Your task to perform on an android device: Clear the cart on newegg. Add razer blackwidow to the cart on newegg, then select checkout. Image 0: 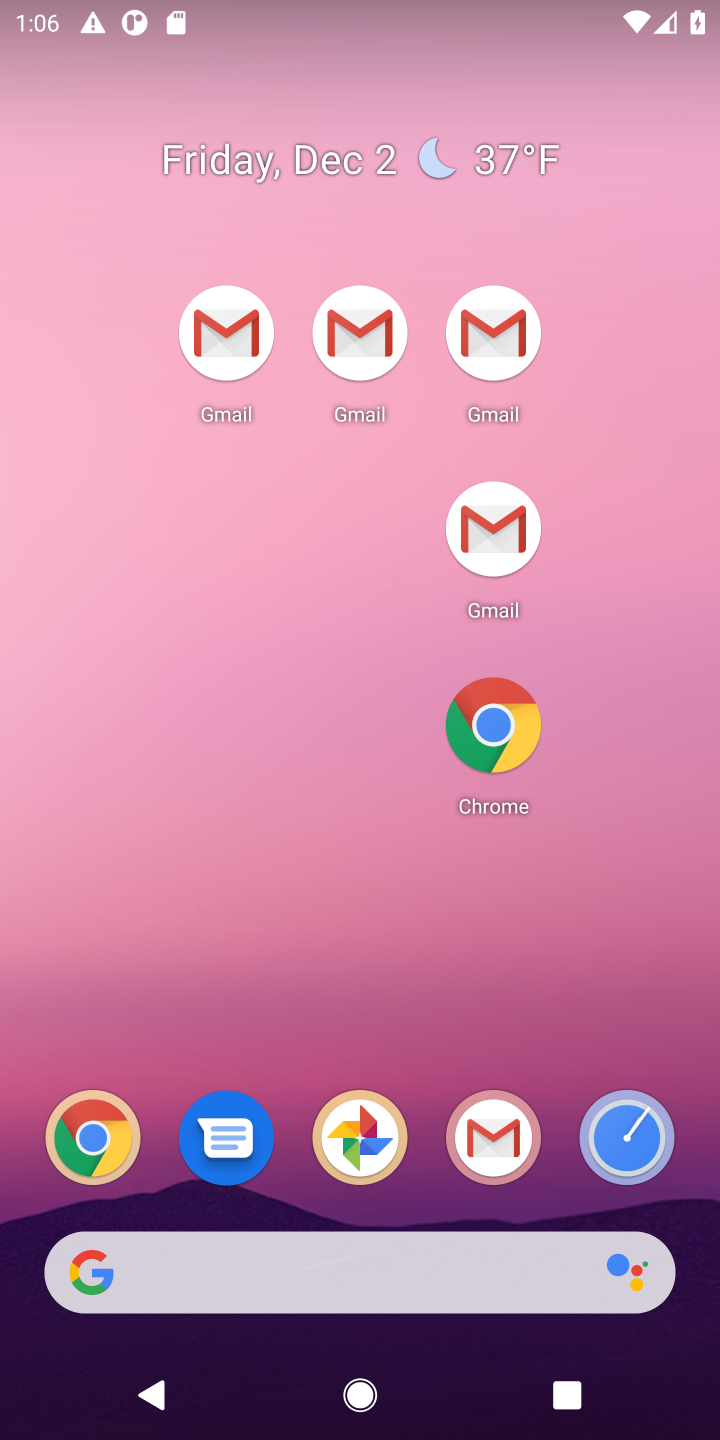
Step 0: drag from (438, 1093) to (438, 551)
Your task to perform on an android device: Clear the cart on newegg. Add razer blackwidow to the cart on newegg, then select checkout. Image 1: 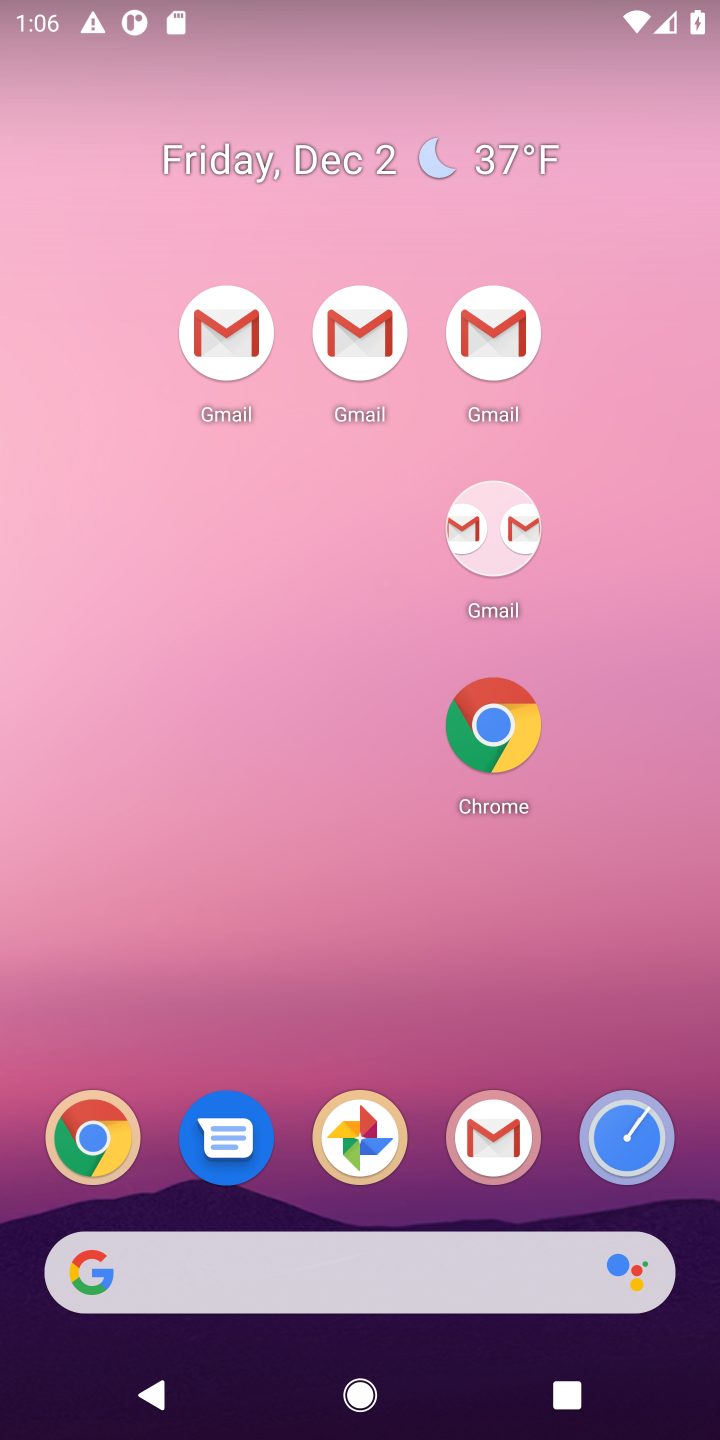
Step 1: drag from (574, 1084) to (579, 99)
Your task to perform on an android device: Clear the cart on newegg. Add razer blackwidow to the cart on newegg, then select checkout. Image 2: 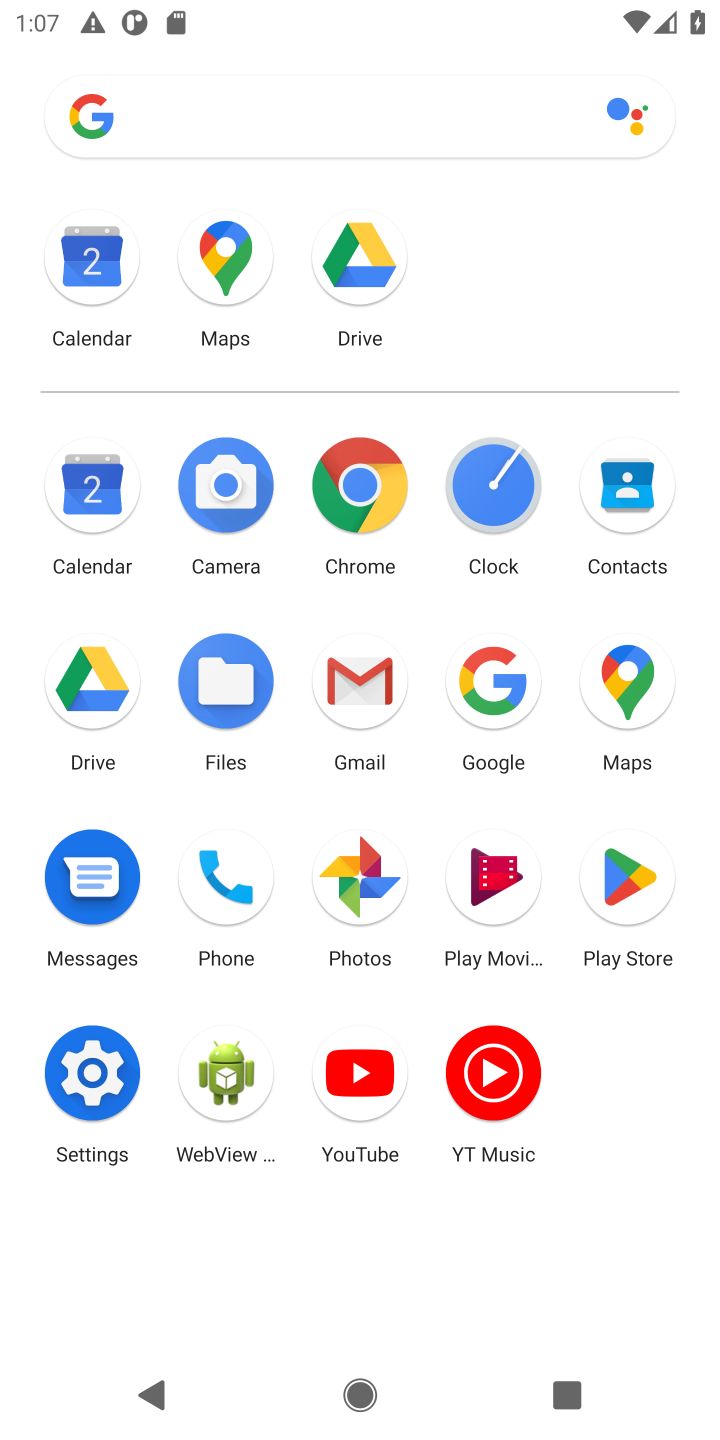
Step 2: click (477, 703)
Your task to perform on an android device: Clear the cart on newegg. Add razer blackwidow to the cart on newegg, then select checkout. Image 3: 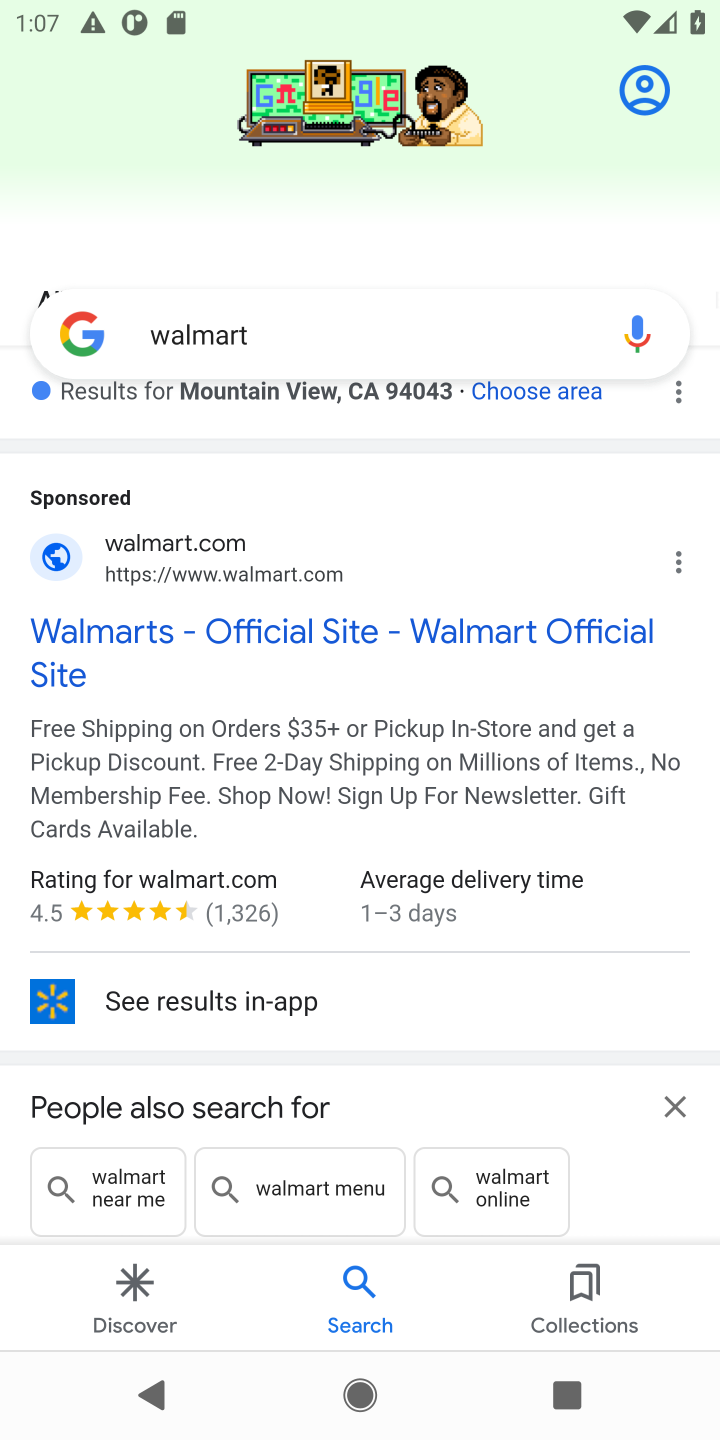
Step 3: click (445, 343)
Your task to perform on an android device: Clear the cart on newegg. Add razer blackwidow to the cart on newegg, then select checkout. Image 4: 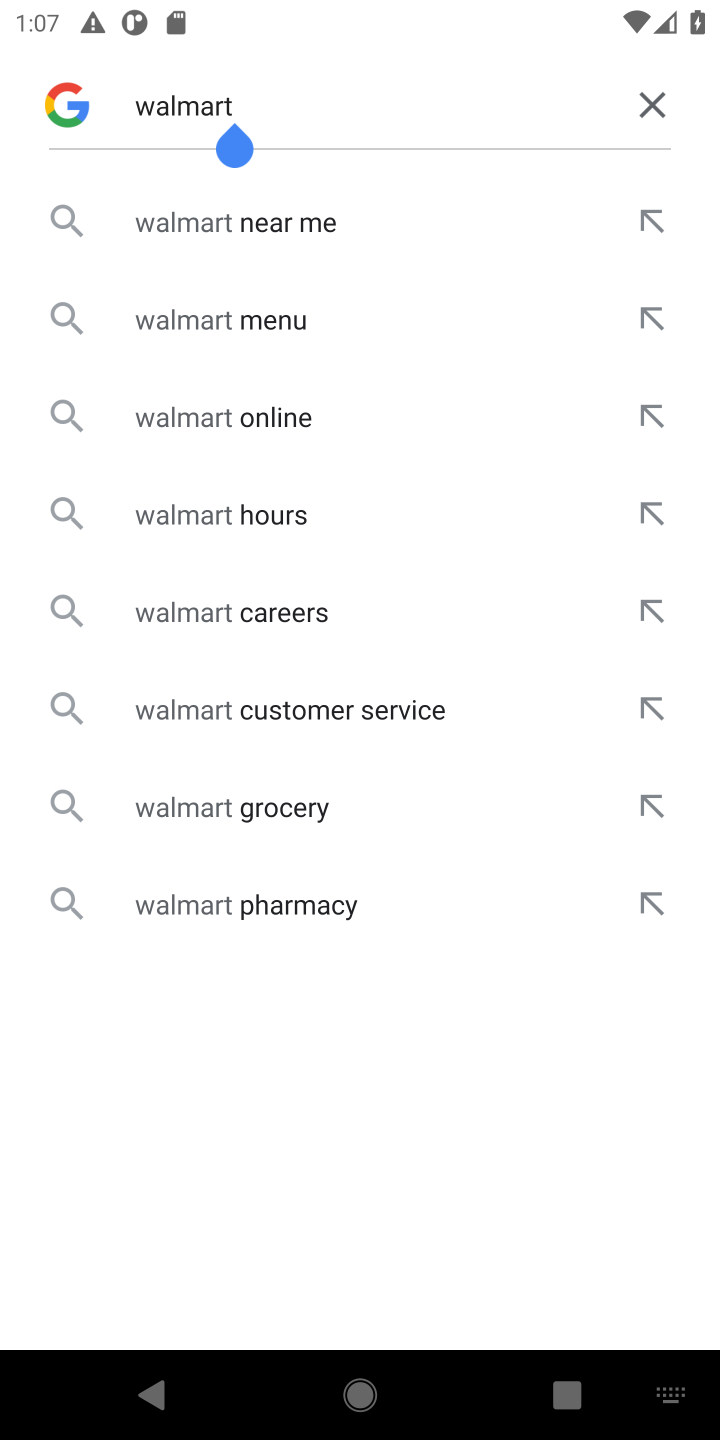
Step 4: click (644, 112)
Your task to perform on an android device: Clear the cart on newegg. Add razer blackwidow to the cart on newegg, then select checkout. Image 5: 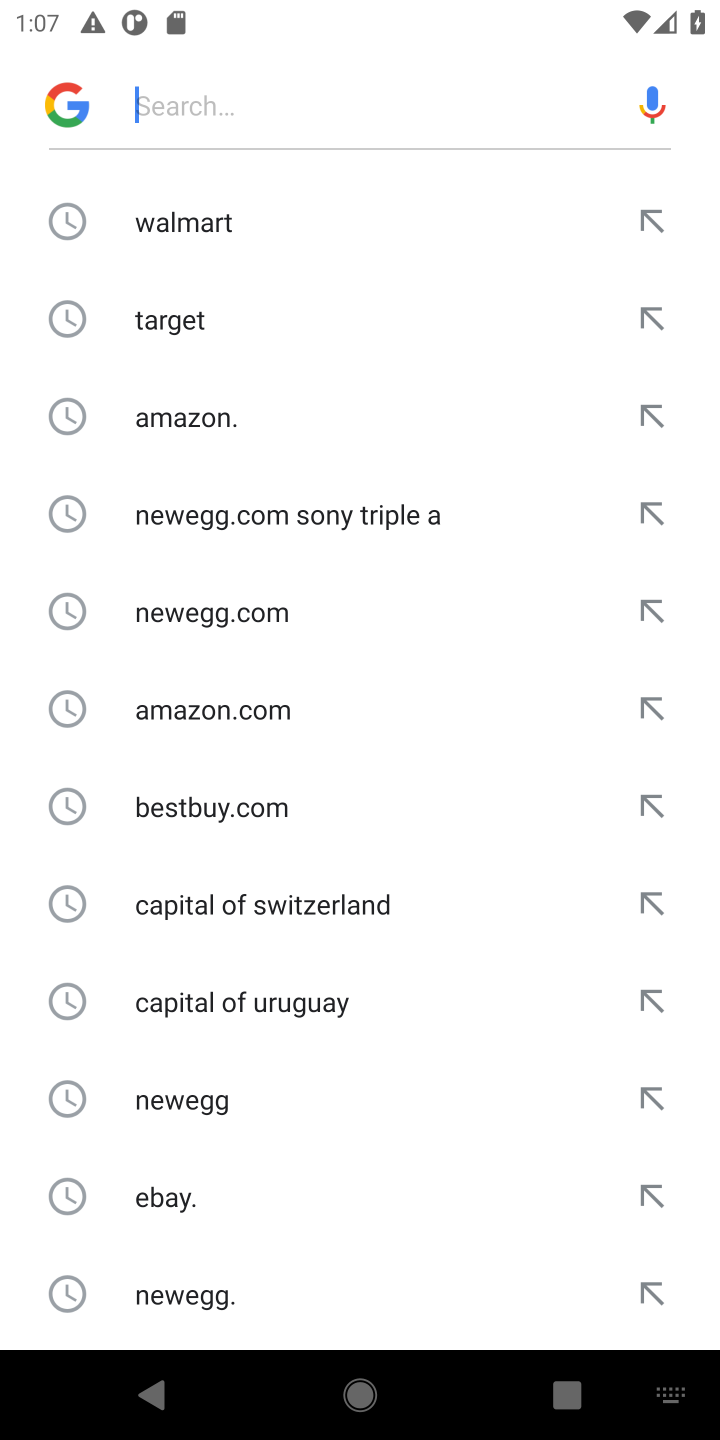
Step 5: type "newegg"
Your task to perform on an android device: Clear the cart on newegg. Add razer blackwidow to the cart on newegg, then select checkout. Image 6: 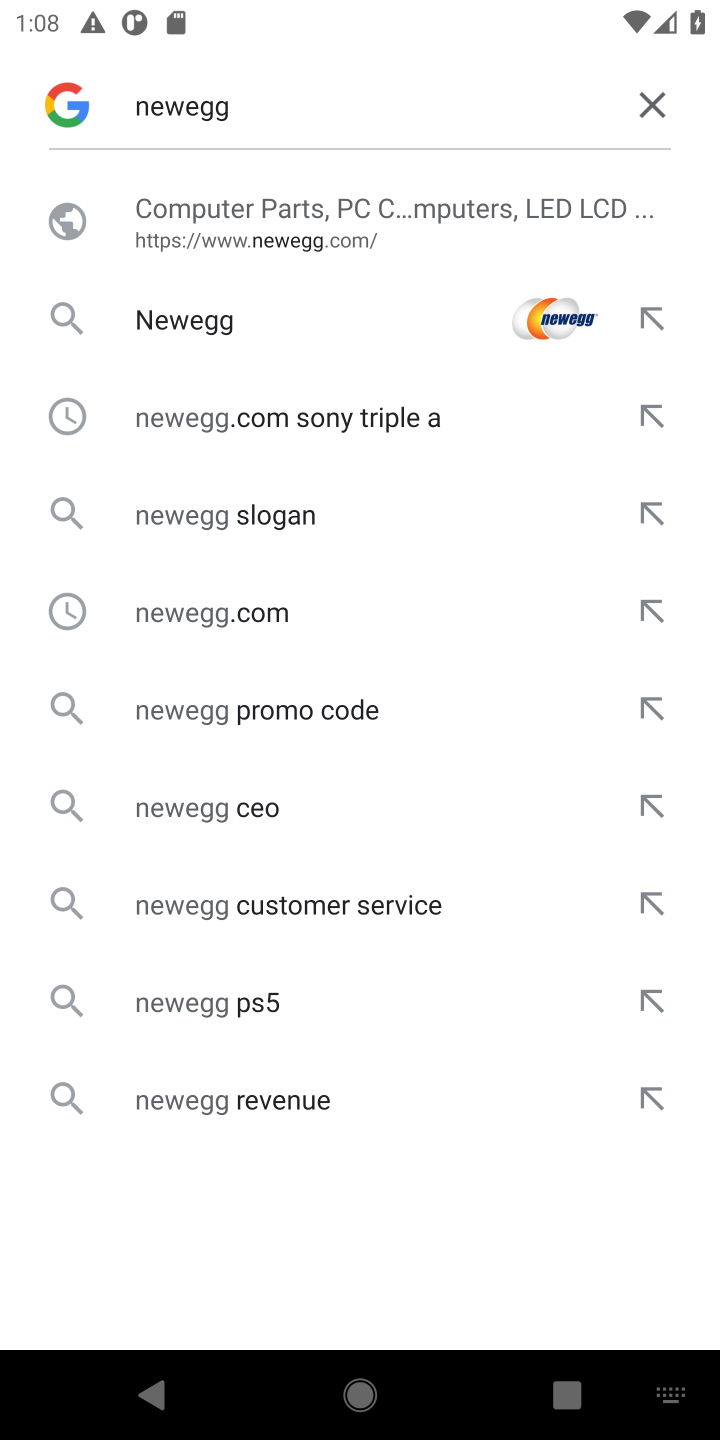
Step 6: click (380, 250)
Your task to perform on an android device: Clear the cart on newegg. Add razer blackwidow to the cart on newegg, then select checkout. Image 7: 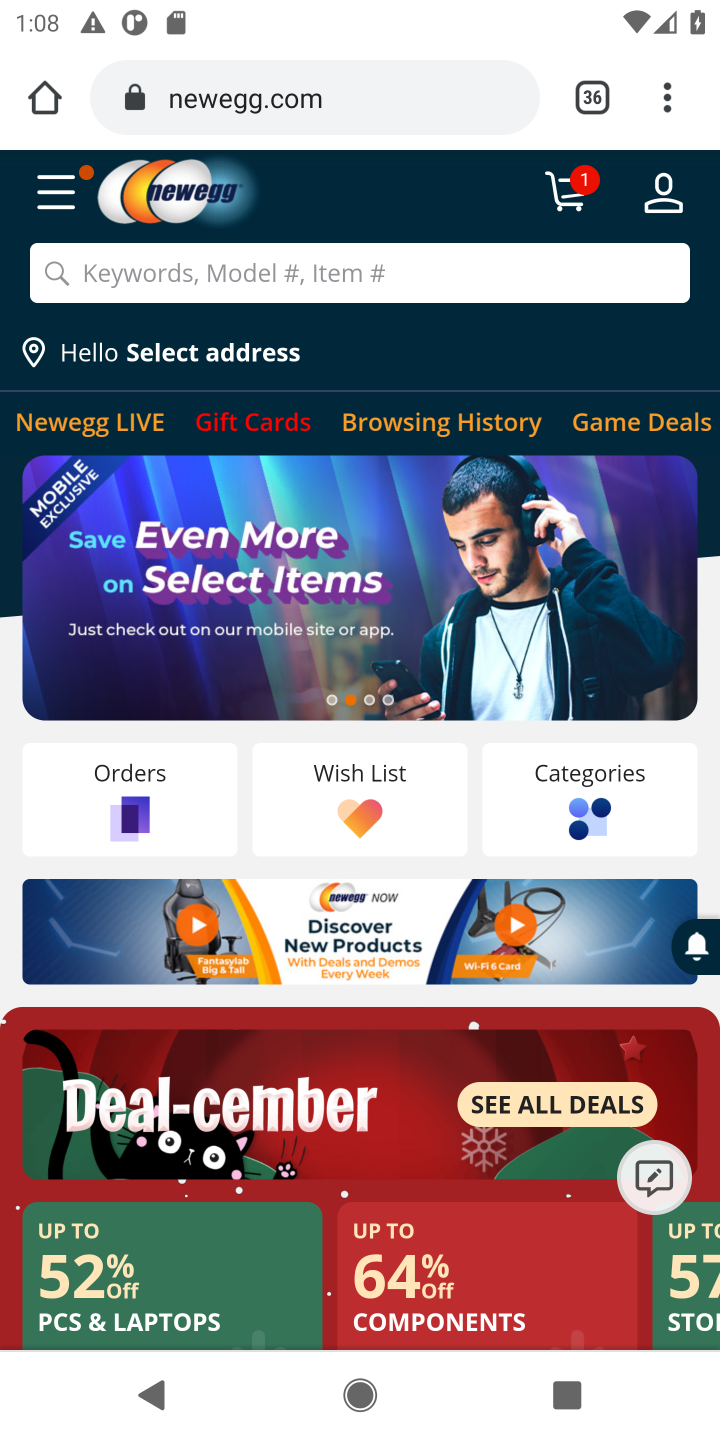
Step 7: click (578, 207)
Your task to perform on an android device: Clear the cart on newegg. Add razer blackwidow to the cart on newegg, then select checkout. Image 8: 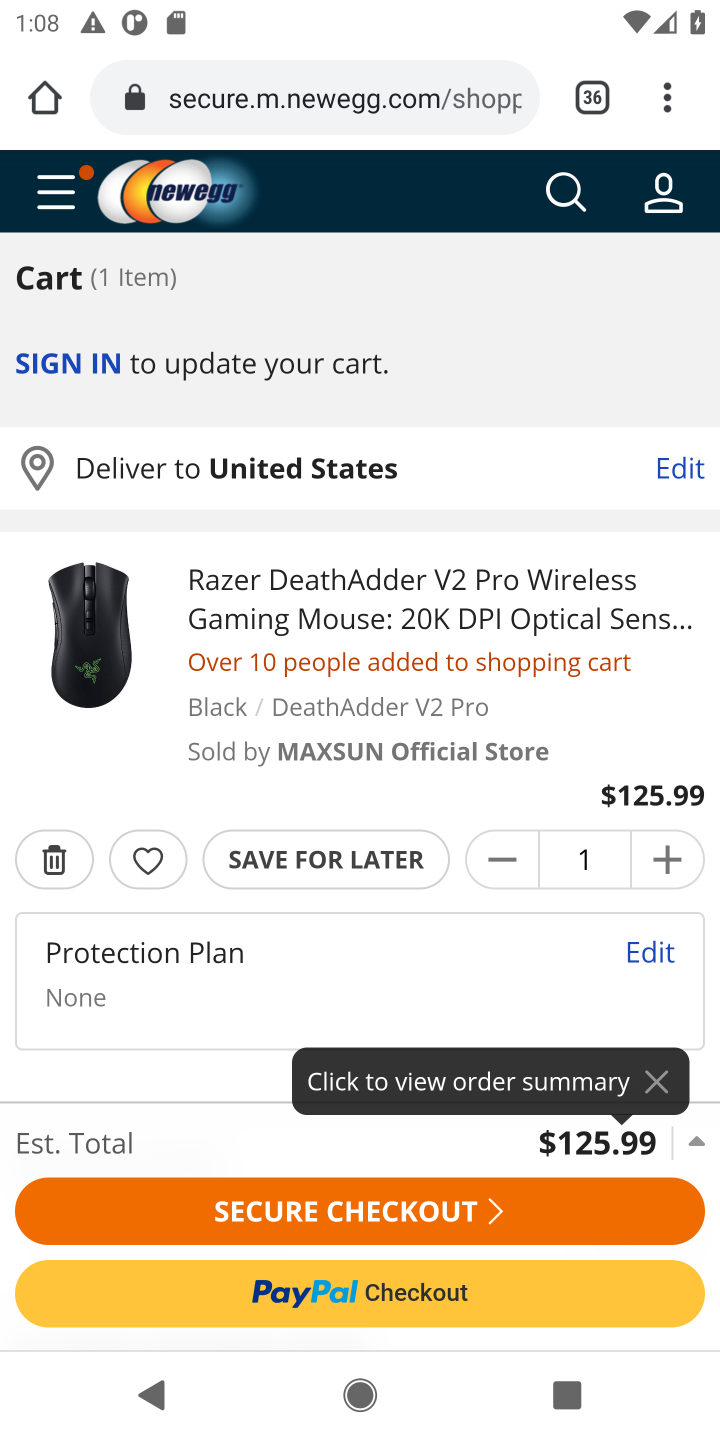
Step 8: click (506, 856)
Your task to perform on an android device: Clear the cart on newegg. Add razer blackwidow to the cart on newegg, then select checkout. Image 9: 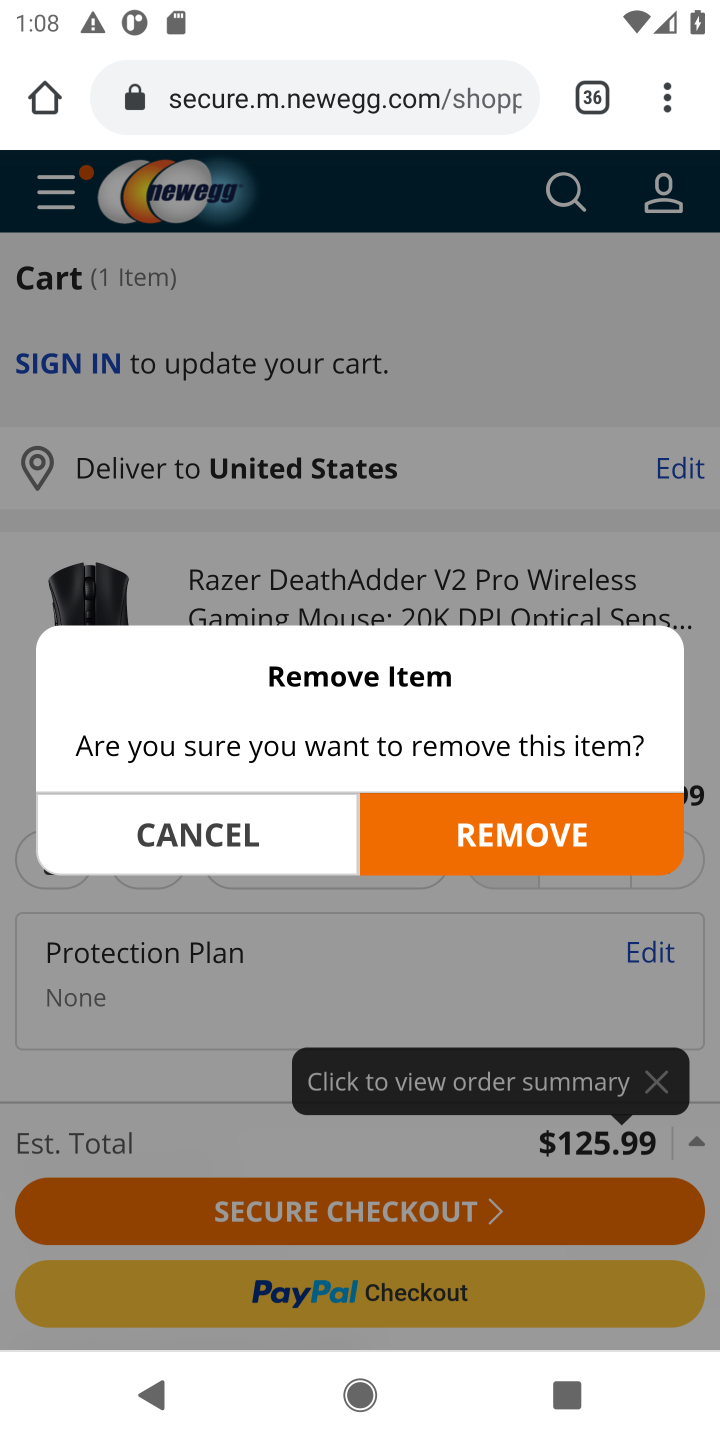
Step 9: click (506, 856)
Your task to perform on an android device: Clear the cart on newegg. Add razer blackwidow to the cart on newegg, then select checkout. Image 10: 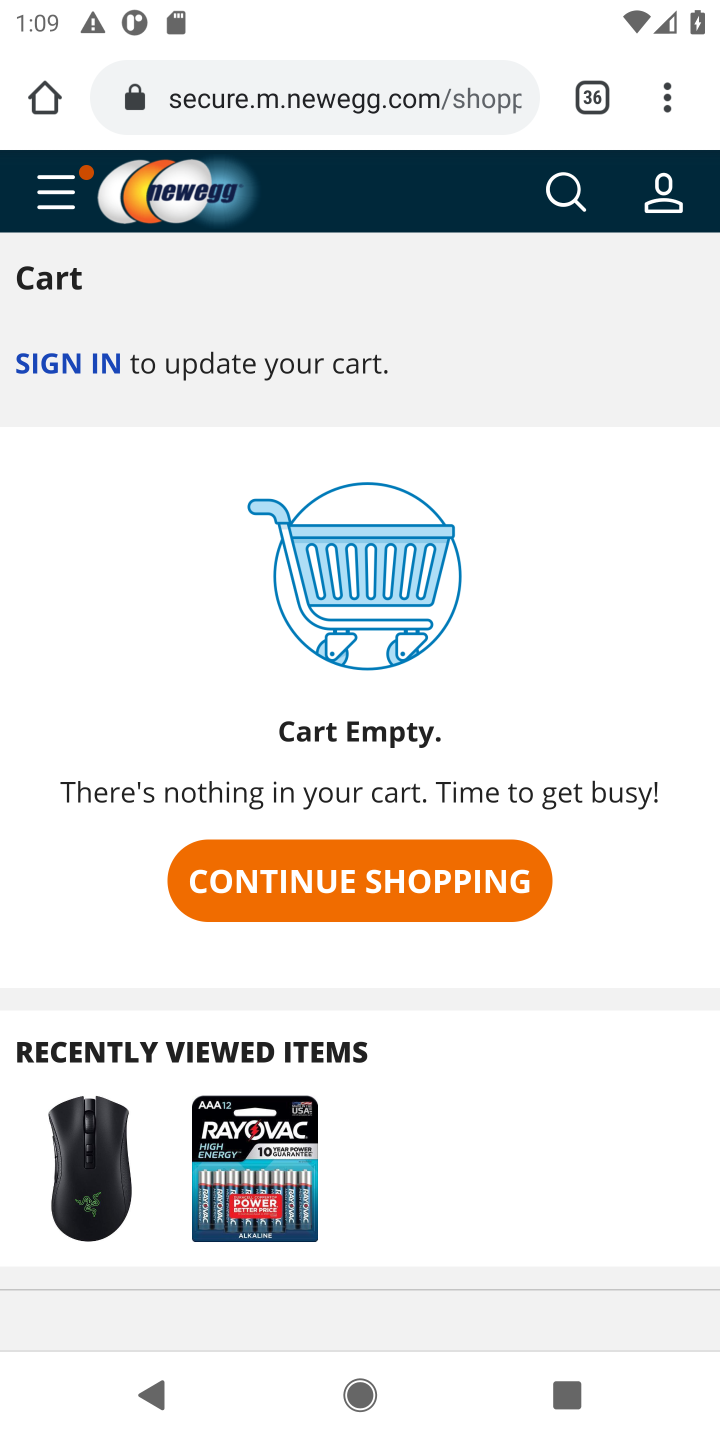
Step 10: click (574, 207)
Your task to perform on an android device: Clear the cart on newegg. Add razer blackwidow to the cart on newegg, then select checkout. Image 11: 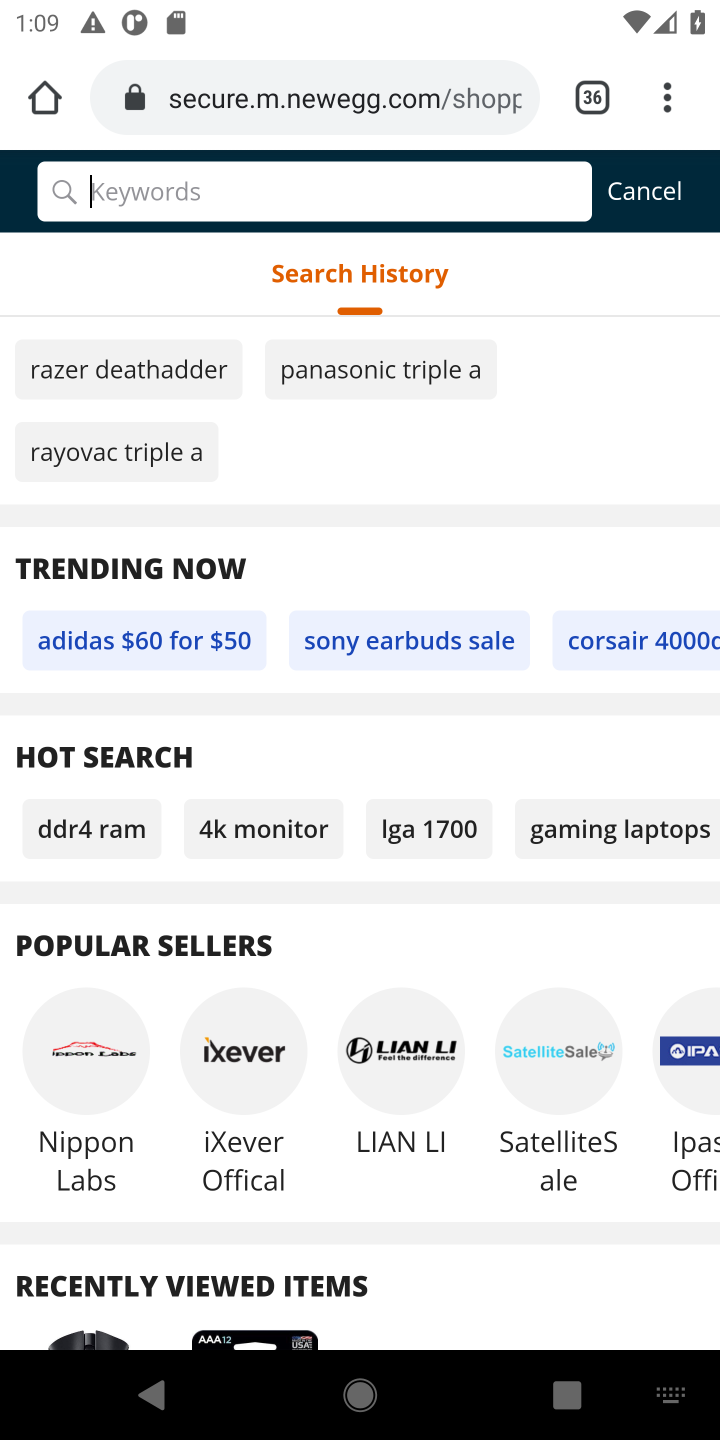
Step 11: type "razer blackwidow"
Your task to perform on an android device: Clear the cart on newegg. Add razer blackwidow to the cart on newegg, then select checkout. Image 12: 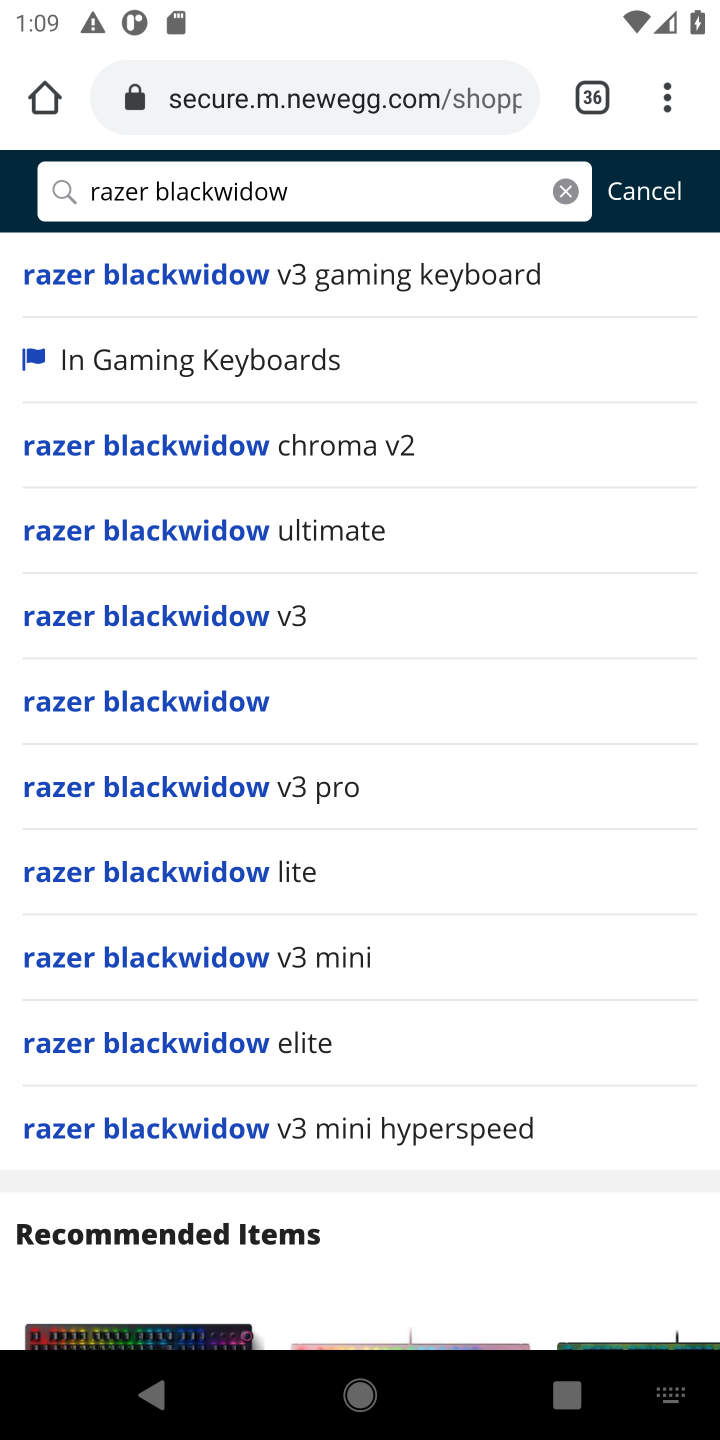
Step 12: click (297, 700)
Your task to perform on an android device: Clear the cart on newegg. Add razer blackwidow to the cart on newegg, then select checkout. Image 13: 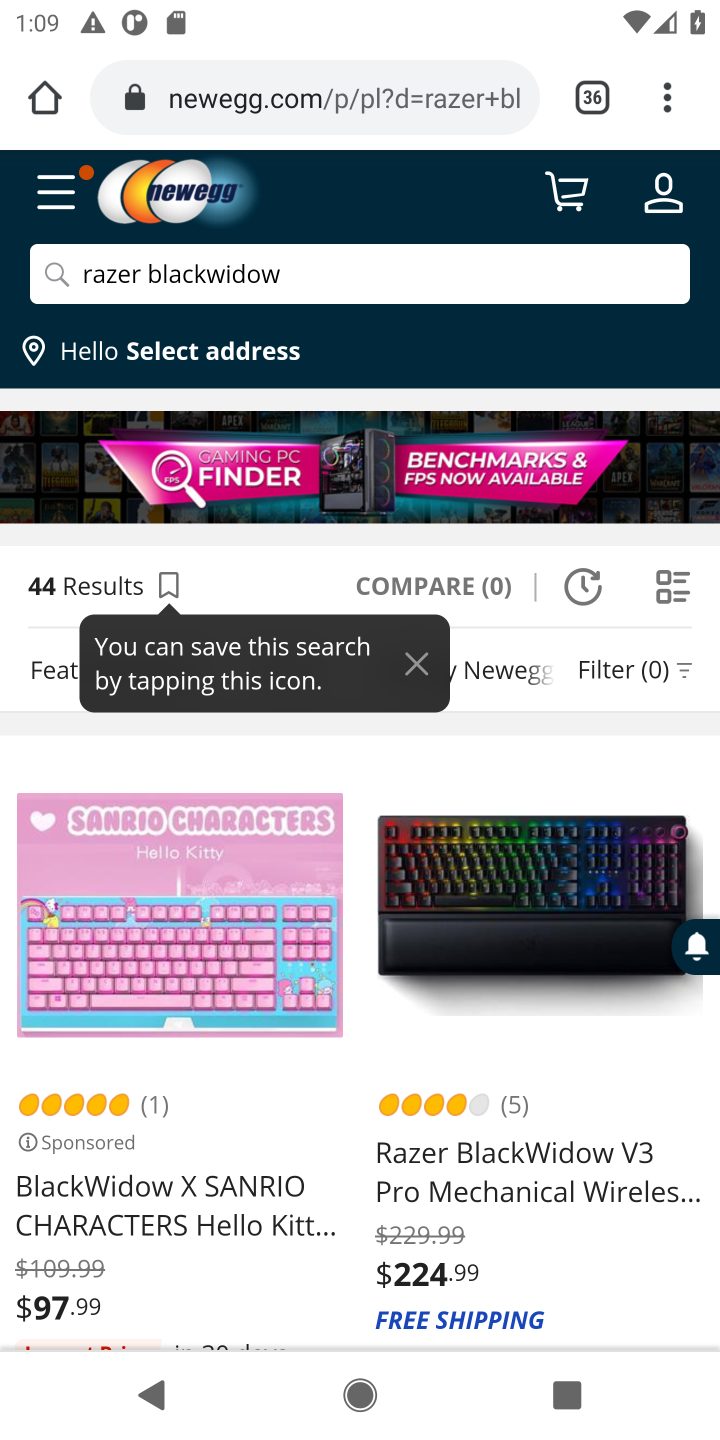
Step 13: click (540, 917)
Your task to perform on an android device: Clear the cart on newegg. Add razer blackwidow to the cart on newegg, then select checkout. Image 14: 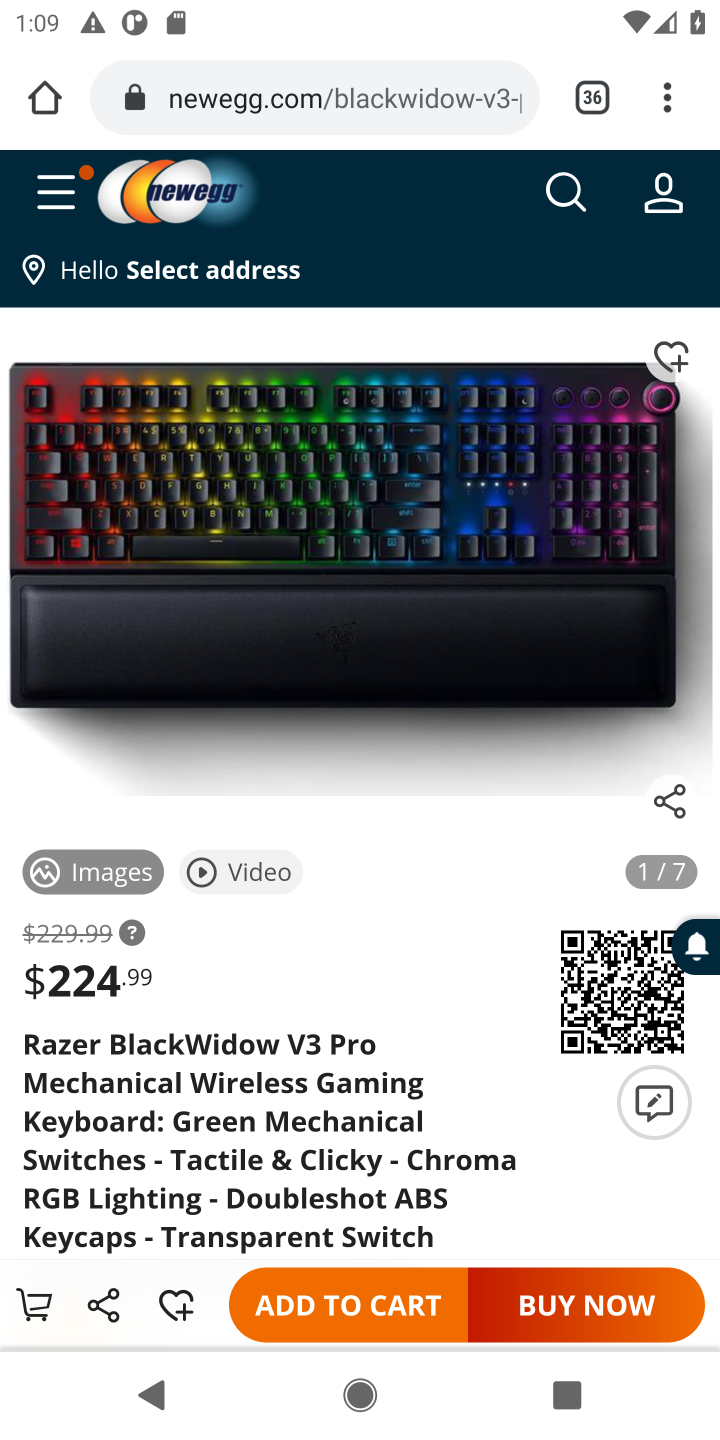
Step 14: click (321, 1304)
Your task to perform on an android device: Clear the cart on newegg. Add razer blackwidow to the cart on newegg, then select checkout. Image 15: 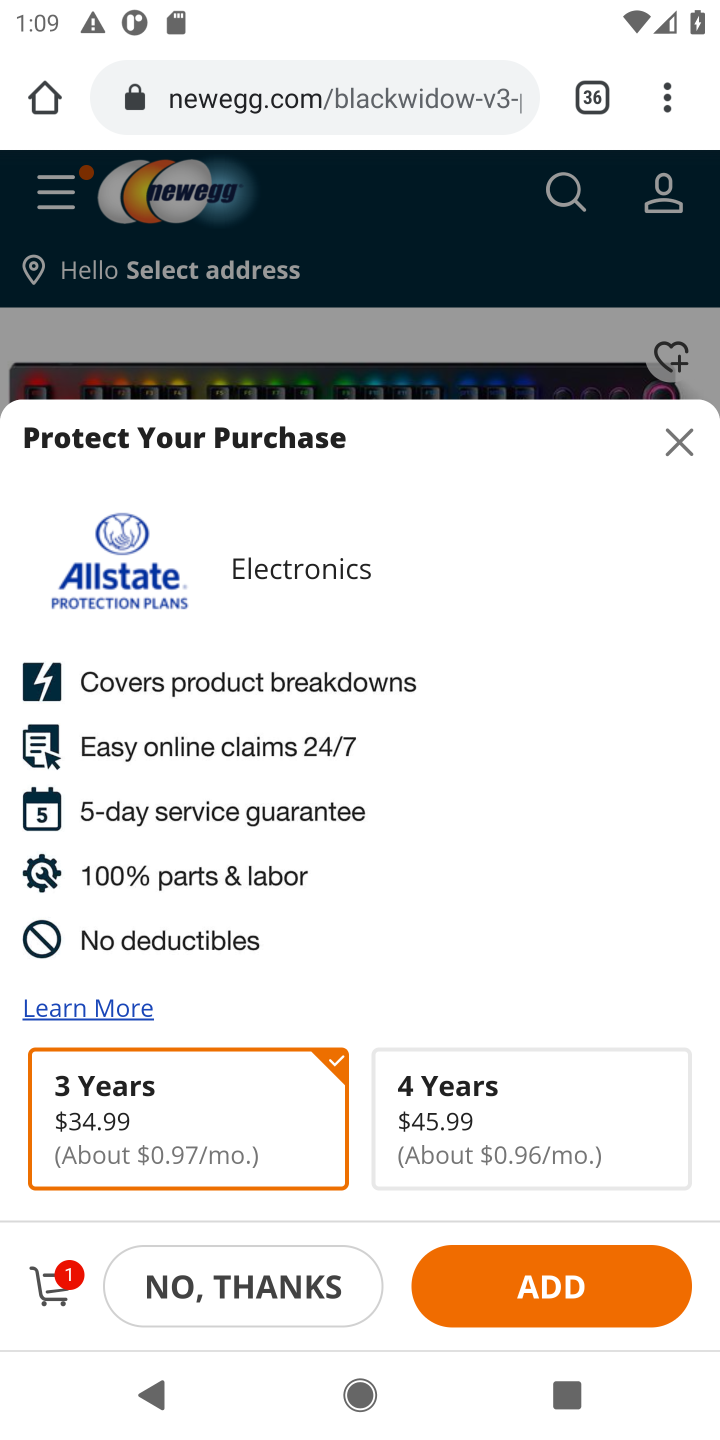
Step 15: click (321, 1304)
Your task to perform on an android device: Clear the cart on newegg. Add razer blackwidow to the cart on newegg, then select checkout. Image 16: 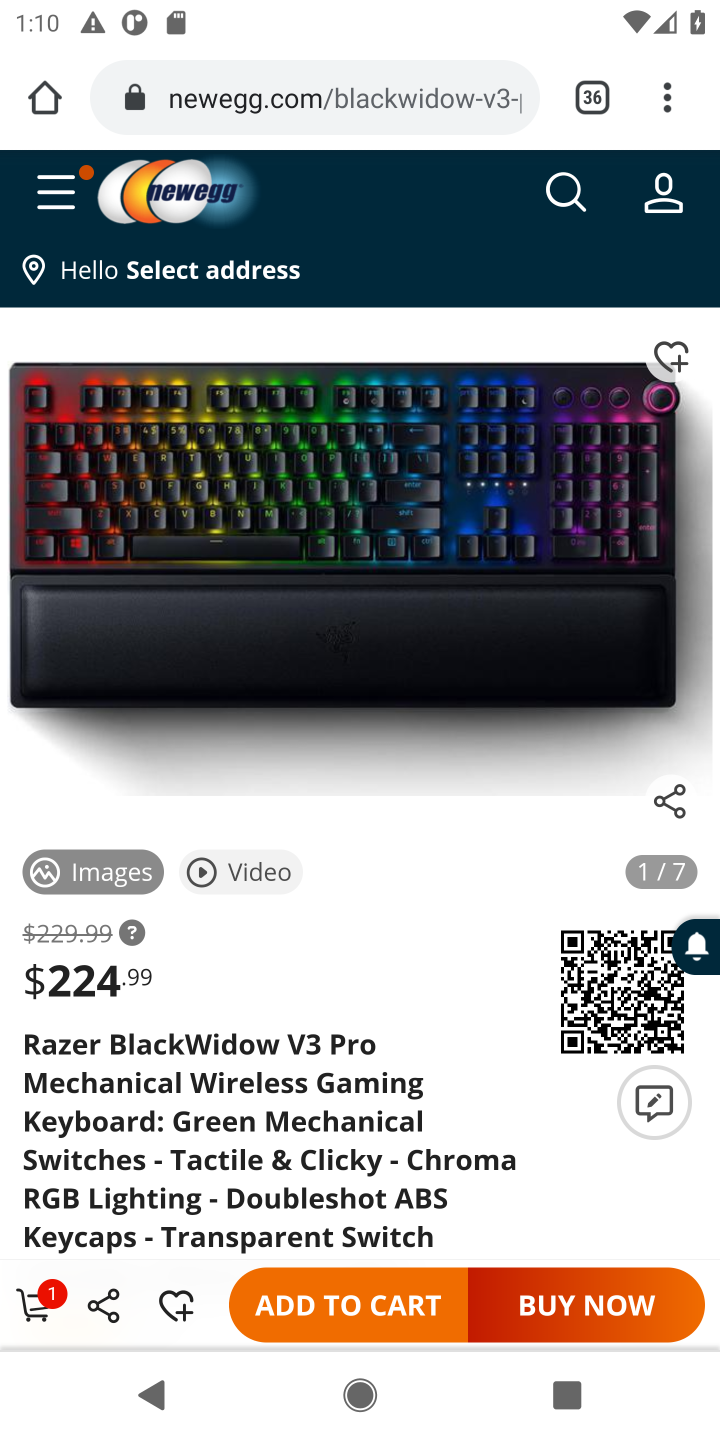
Step 16: click (46, 1299)
Your task to perform on an android device: Clear the cart on newegg. Add razer blackwidow to the cart on newegg, then select checkout. Image 17: 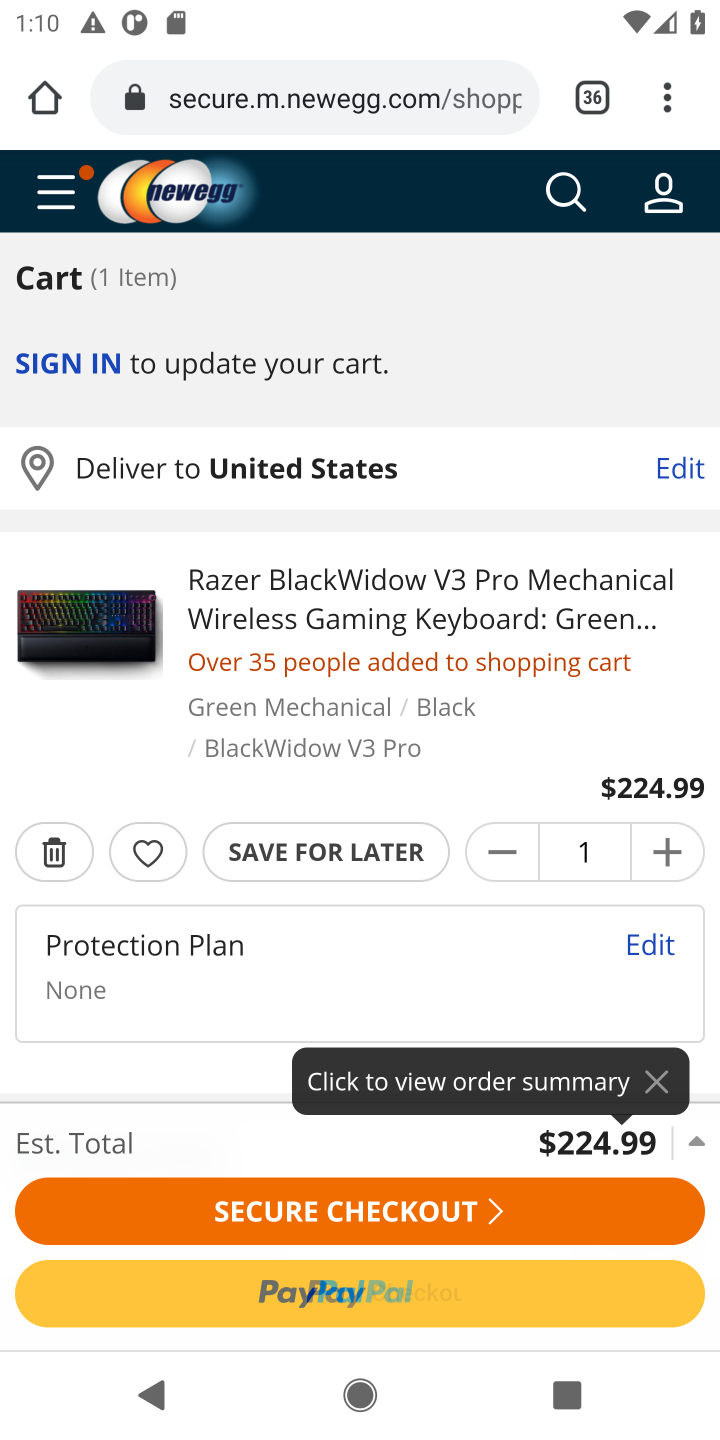
Step 17: click (340, 1218)
Your task to perform on an android device: Clear the cart on newegg. Add razer blackwidow to the cart on newegg, then select checkout. Image 18: 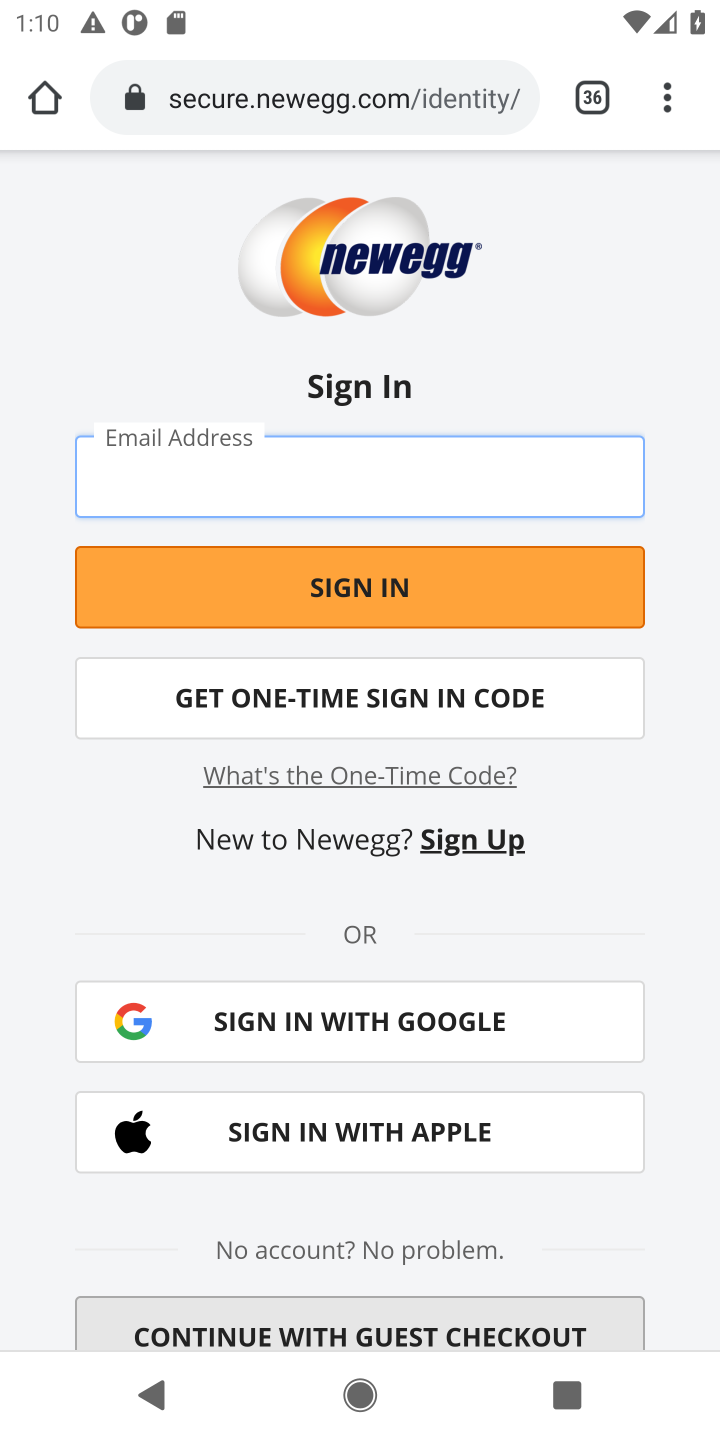
Step 18: task complete